Your task to perform on an android device: clear all cookies in the chrome app Image 0: 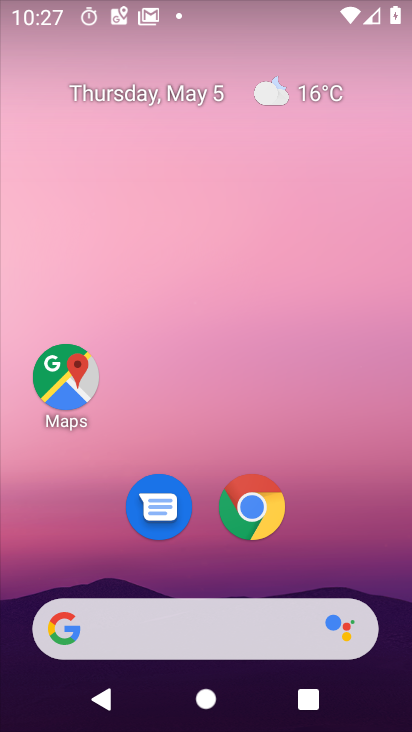
Step 0: drag from (178, 600) to (191, 187)
Your task to perform on an android device: clear all cookies in the chrome app Image 1: 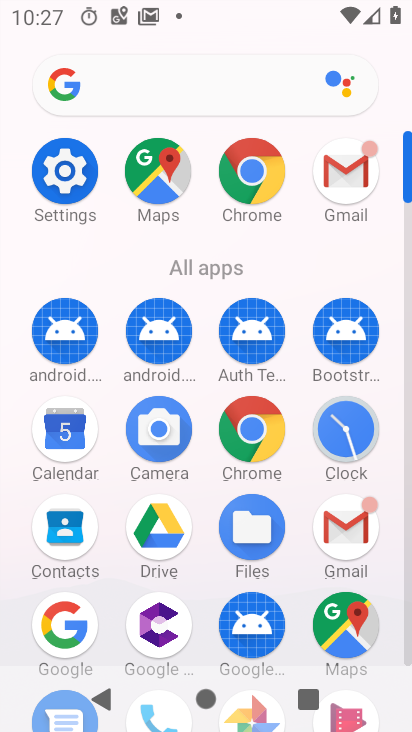
Step 1: click (254, 175)
Your task to perform on an android device: clear all cookies in the chrome app Image 2: 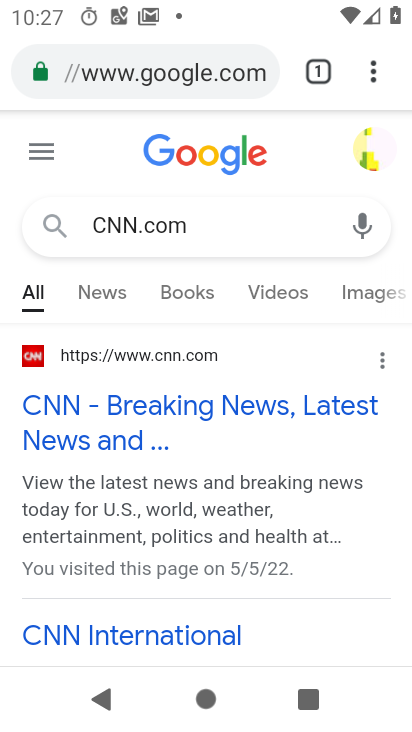
Step 2: click (190, 80)
Your task to perform on an android device: clear all cookies in the chrome app Image 3: 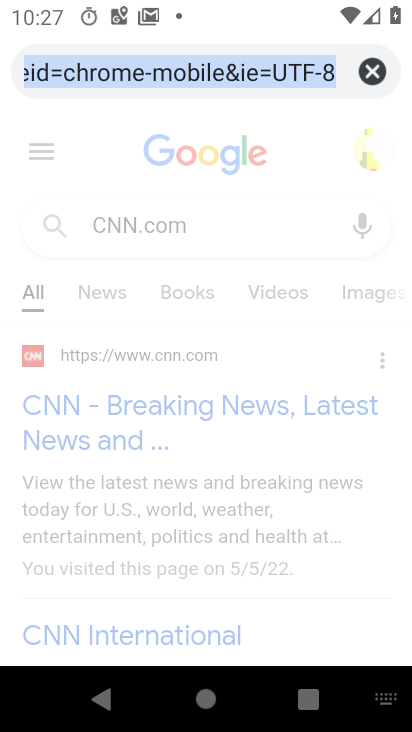
Step 3: click (92, 132)
Your task to perform on an android device: clear all cookies in the chrome app Image 4: 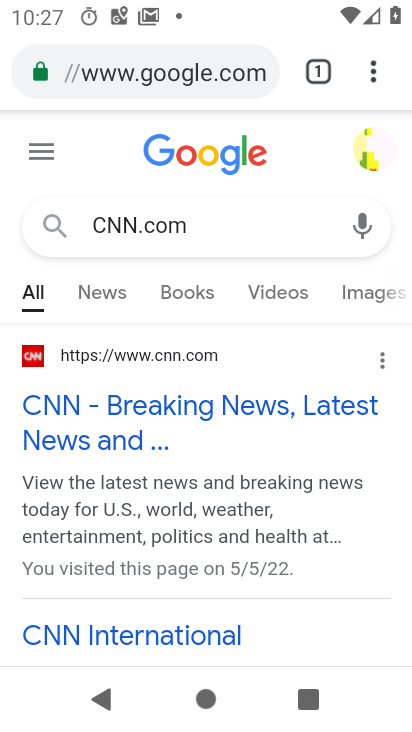
Step 4: click (373, 70)
Your task to perform on an android device: clear all cookies in the chrome app Image 5: 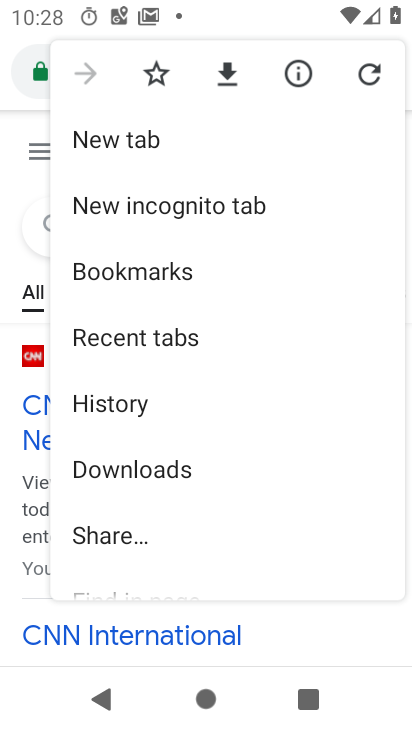
Step 5: click (108, 408)
Your task to perform on an android device: clear all cookies in the chrome app Image 6: 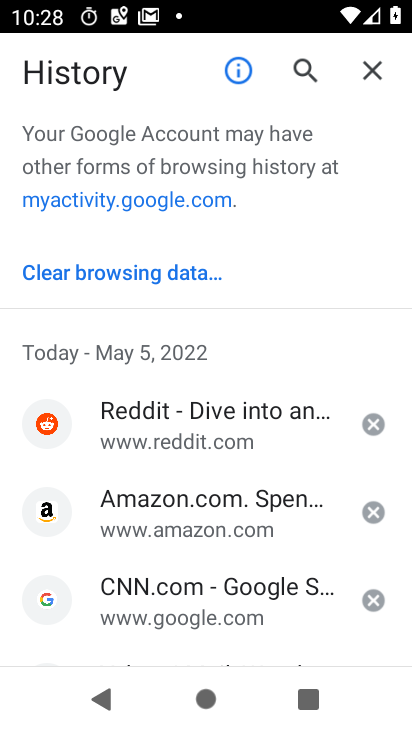
Step 6: drag from (224, 635) to (289, 565)
Your task to perform on an android device: clear all cookies in the chrome app Image 7: 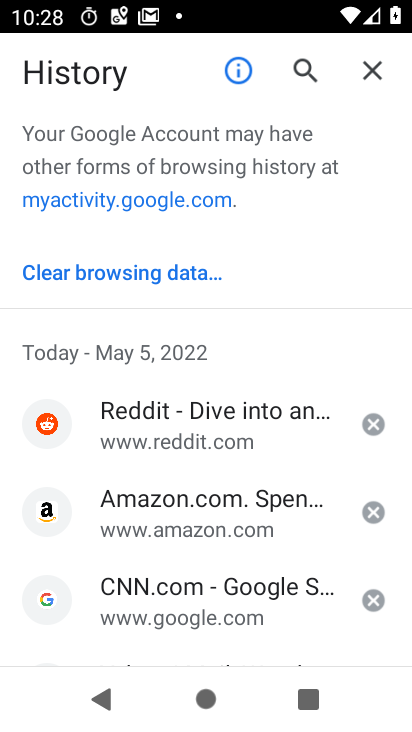
Step 7: click (194, 284)
Your task to perform on an android device: clear all cookies in the chrome app Image 8: 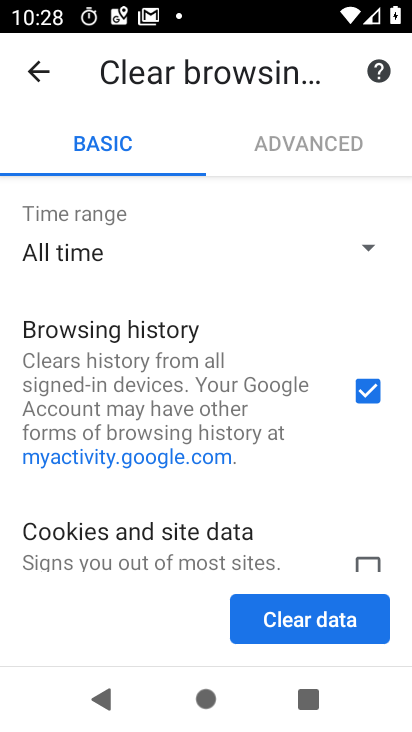
Step 8: drag from (261, 498) to (263, 308)
Your task to perform on an android device: clear all cookies in the chrome app Image 9: 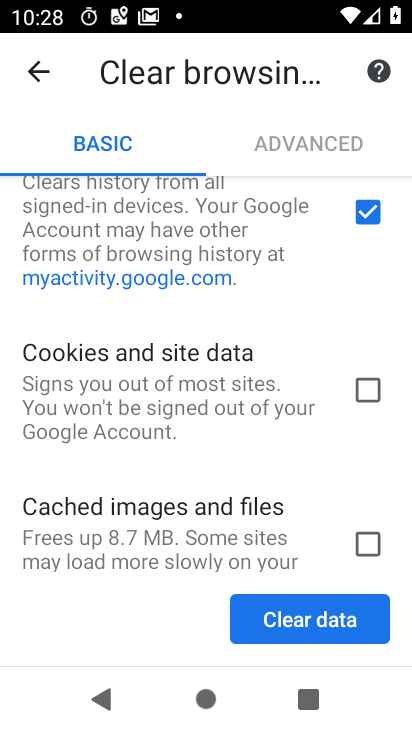
Step 9: click (368, 390)
Your task to perform on an android device: clear all cookies in the chrome app Image 10: 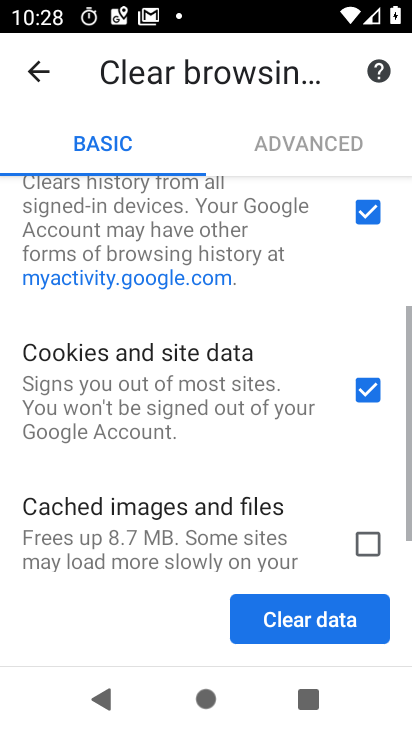
Step 10: click (368, 212)
Your task to perform on an android device: clear all cookies in the chrome app Image 11: 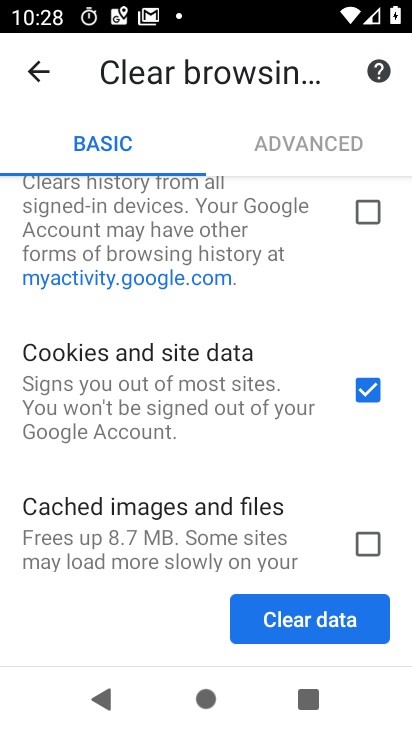
Step 11: click (313, 628)
Your task to perform on an android device: clear all cookies in the chrome app Image 12: 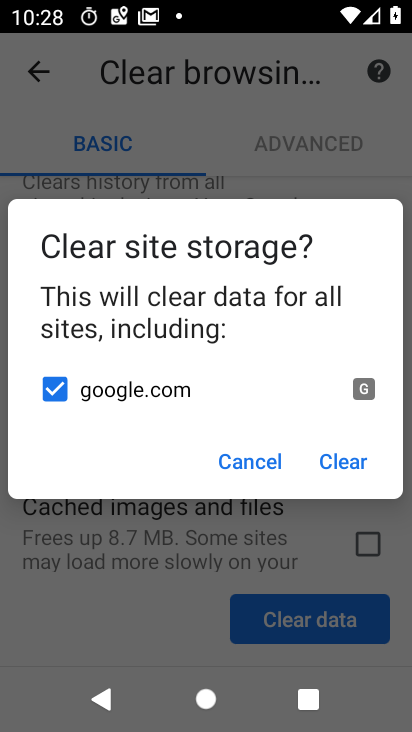
Step 12: click (355, 458)
Your task to perform on an android device: clear all cookies in the chrome app Image 13: 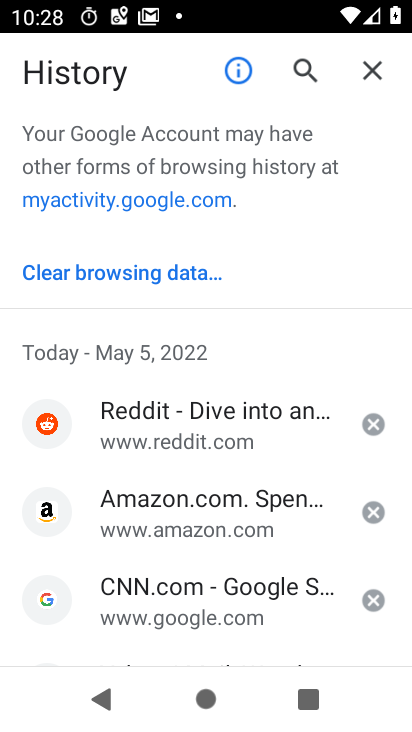
Step 13: task complete